Your task to perform on an android device: move an email to a new category in the gmail app Image 0: 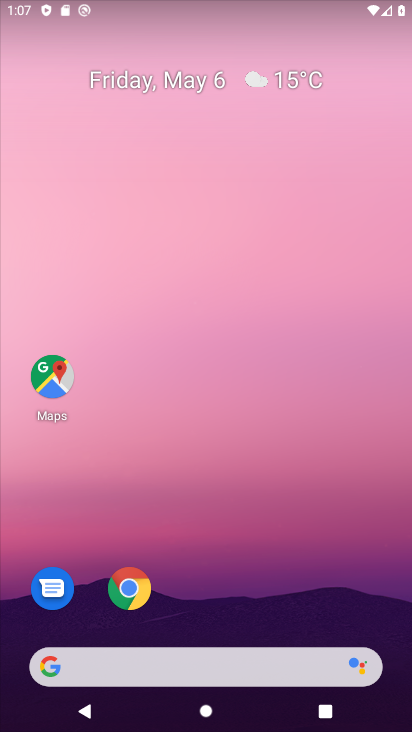
Step 0: drag from (232, 582) to (305, 328)
Your task to perform on an android device: move an email to a new category in the gmail app Image 1: 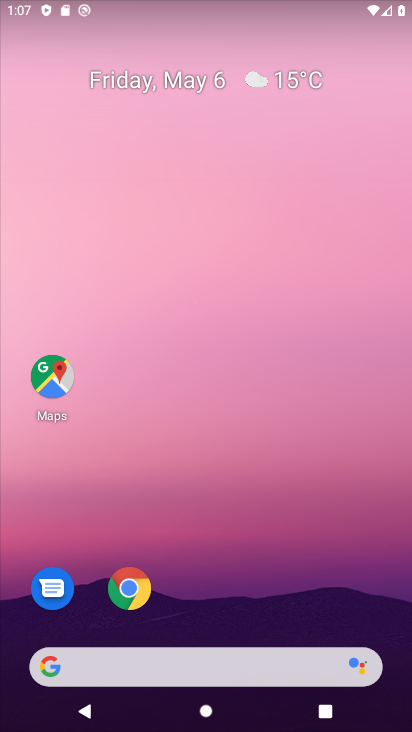
Step 1: drag from (190, 583) to (297, 21)
Your task to perform on an android device: move an email to a new category in the gmail app Image 2: 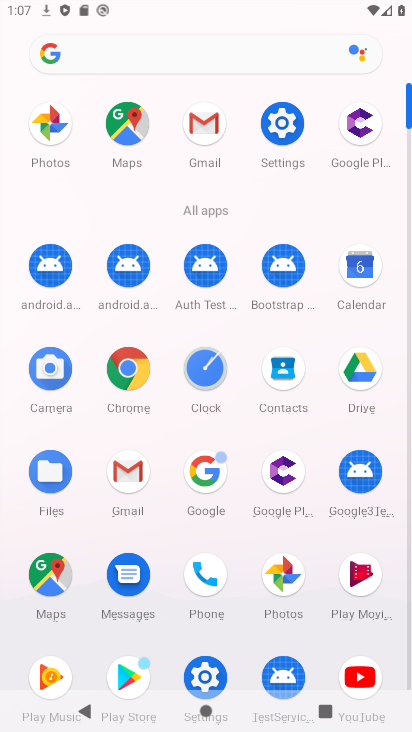
Step 2: click (139, 464)
Your task to perform on an android device: move an email to a new category in the gmail app Image 3: 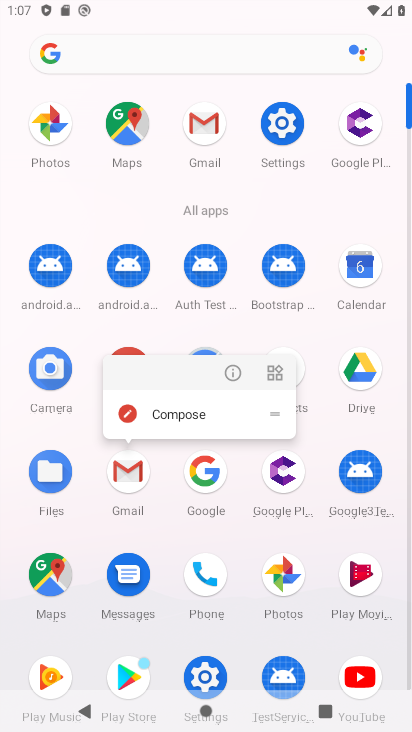
Step 3: click (237, 377)
Your task to perform on an android device: move an email to a new category in the gmail app Image 4: 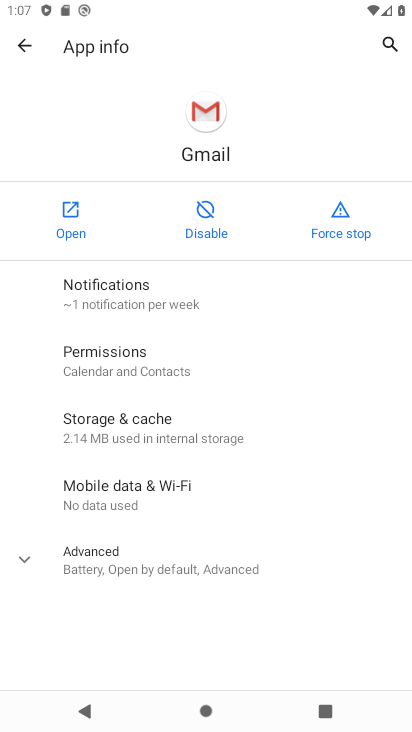
Step 4: click (78, 225)
Your task to perform on an android device: move an email to a new category in the gmail app Image 5: 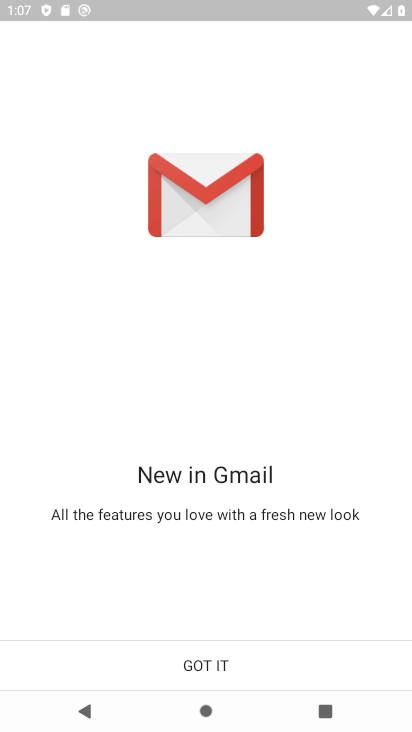
Step 5: click (221, 650)
Your task to perform on an android device: move an email to a new category in the gmail app Image 6: 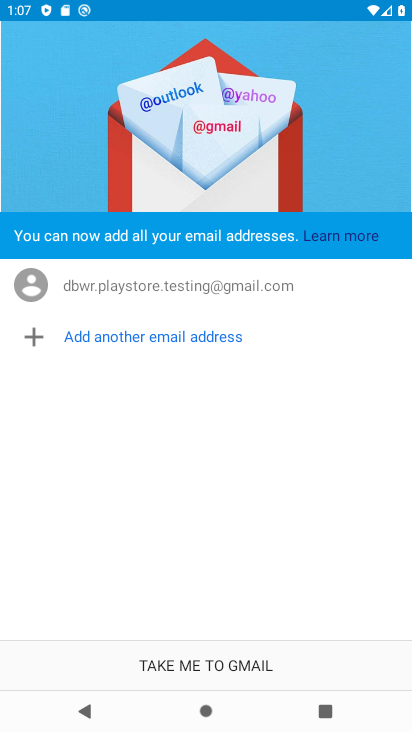
Step 6: click (224, 659)
Your task to perform on an android device: move an email to a new category in the gmail app Image 7: 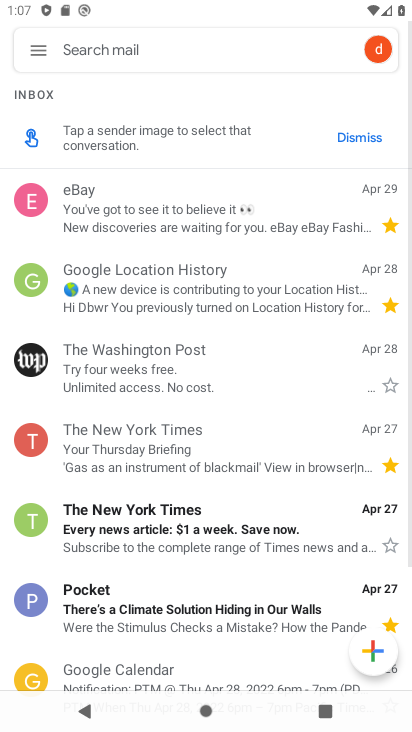
Step 7: click (36, 40)
Your task to perform on an android device: move an email to a new category in the gmail app Image 8: 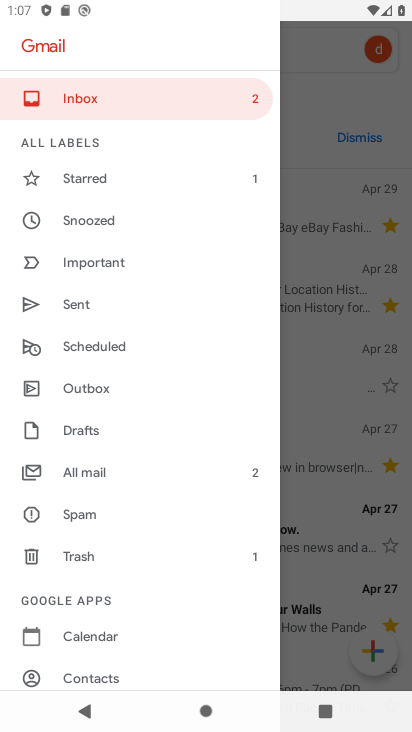
Step 8: drag from (136, 640) to (186, 138)
Your task to perform on an android device: move an email to a new category in the gmail app Image 9: 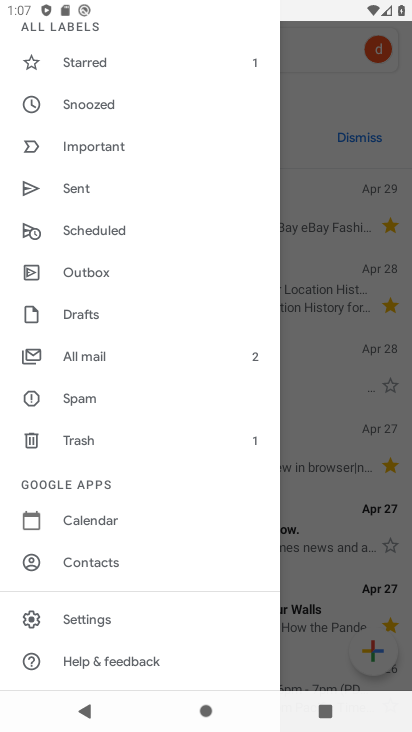
Step 9: click (345, 180)
Your task to perform on an android device: move an email to a new category in the gmail app Image 10: 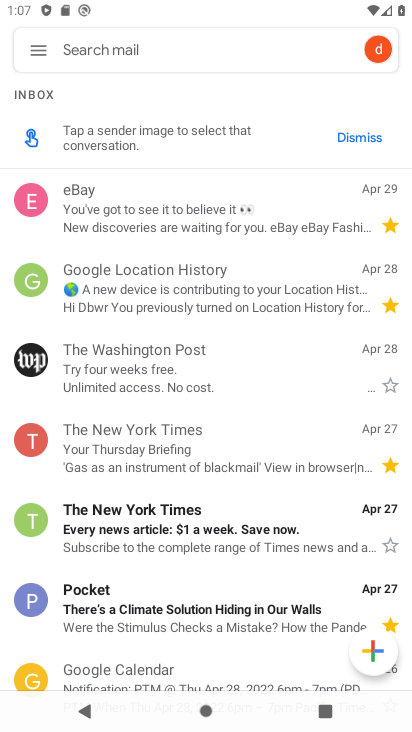
Step 10: click (327, 228)
Your task to perform on an android device: move an email to a new category in the gmail app Image 11: 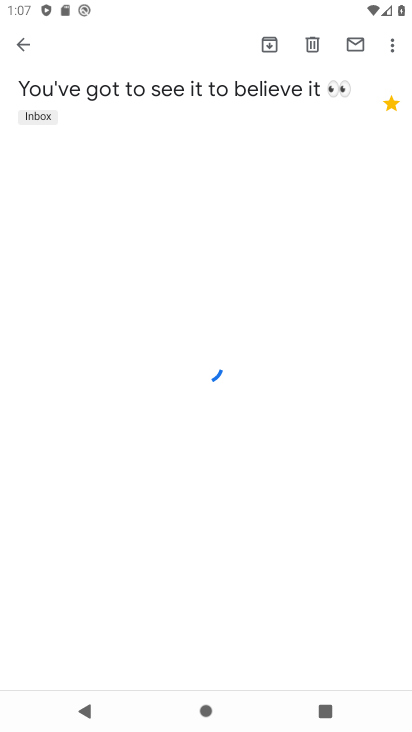
Step 11: click (386, 103)
Your task to perform on an android device: move an email to a new category in the gmail app Image 12: 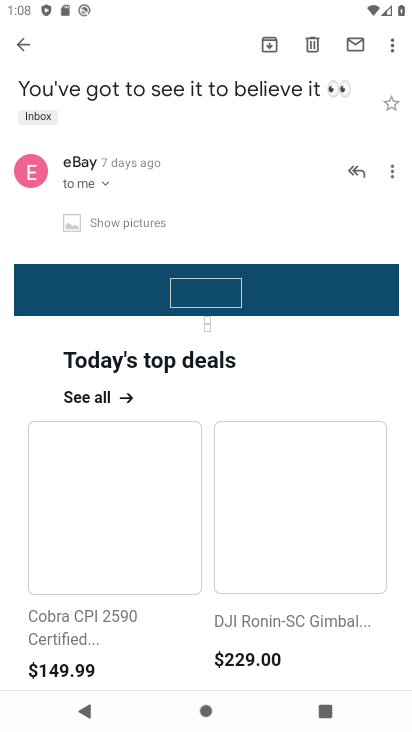
Step 12: task complete